Your task to perform on an android device: Open the Play Movies app and select the watchlist tab. Image 0: 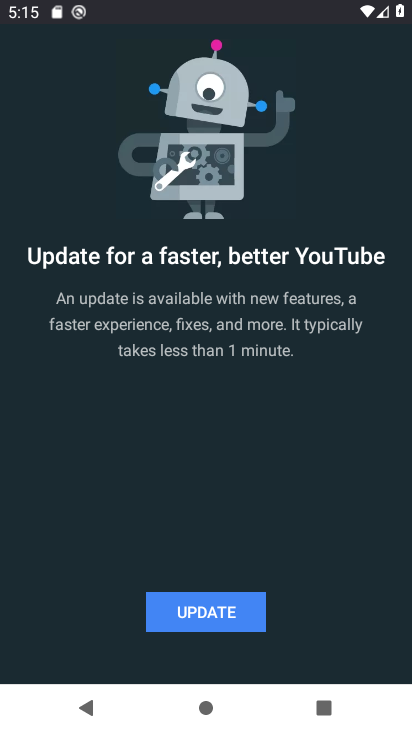
Step 0: press home button
Your task to perform on an android device: Open the Play Movies app and select the watchlist tab. Image 1: 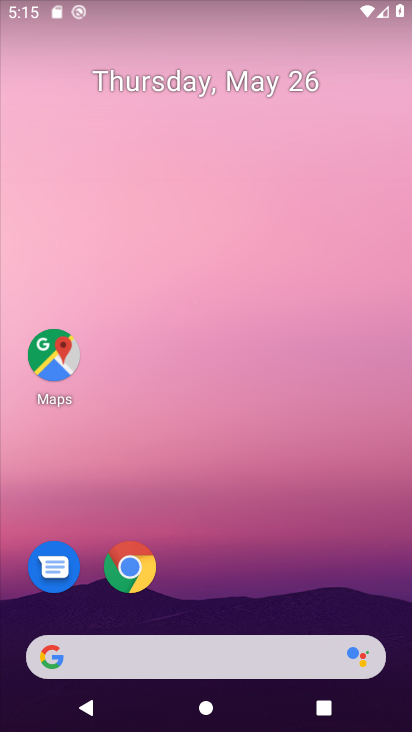
Step 1: drag from (312, 574) to (339, 216)
Your task to perform on an android device: Open the Play Movies app and select the watchlist tab. Image 2: 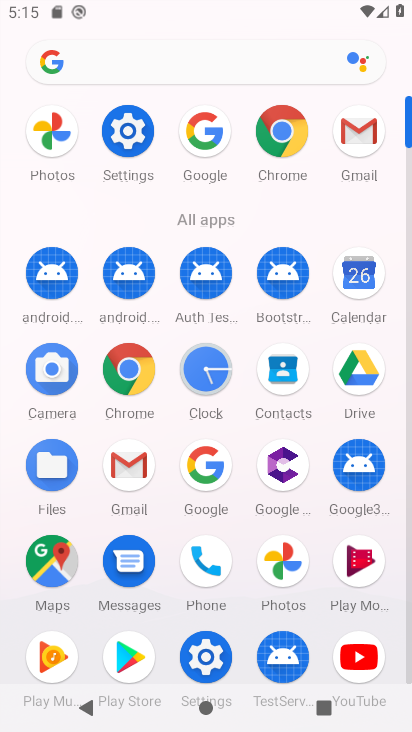
Step 2: click (362, 561)
Your task to perform on an android device: Open the Play Movies app and select the watchlist tab. Image 3: 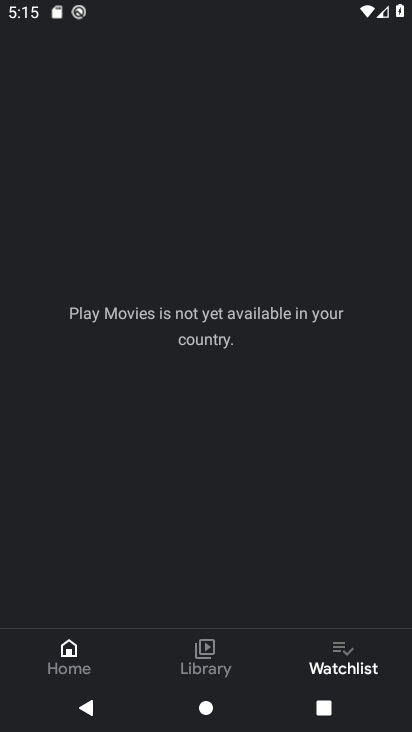
Step 3: click (334, 659)
Your task to perform on an android device: Open the Play Movies app and select the watchlist tab. Image 4: 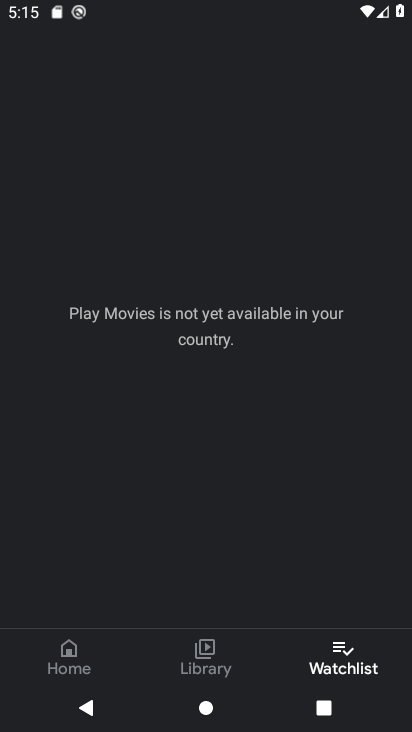
Step 4: click (333, 658)
Your task to perform on an android device: Open the Play Movies app and select the watchlist tab. Image 5: 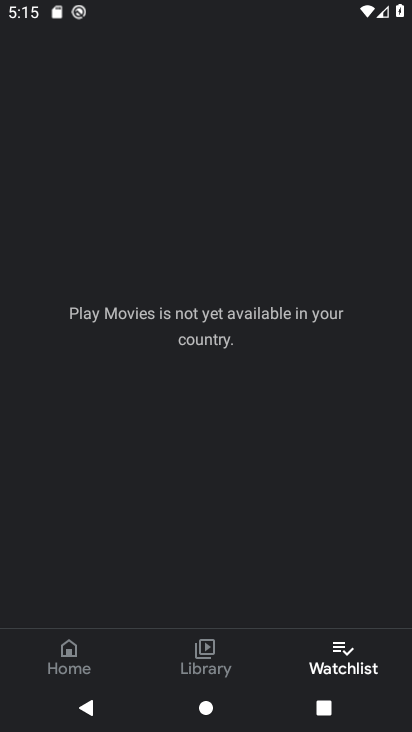
Step 5: click (342, 649)
Your task to perform on an android device: Open the Play Movies app and select the watchlist tab. Image 6: 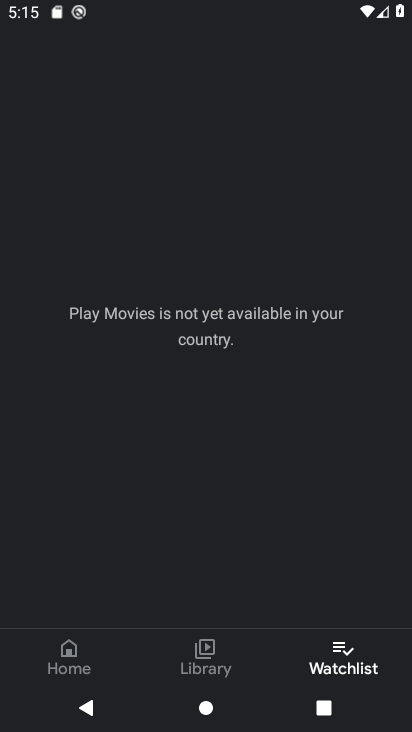
Step 6: click (343, 657)
Your task to perform on an android device: Open the Play Movies app and select the watchlist tab. Image 7: 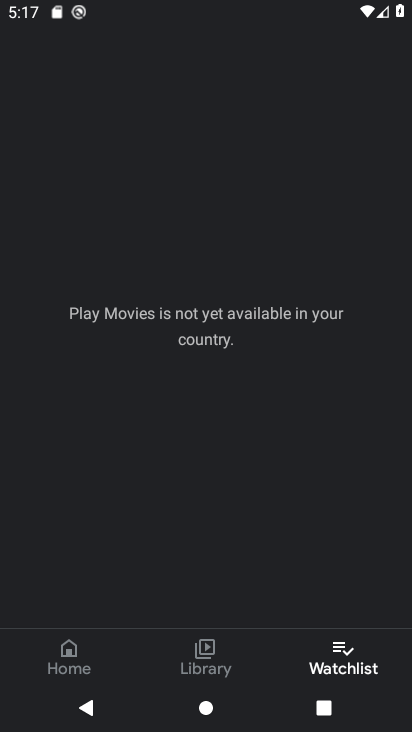
Step 7: task complete